Your task to perform on an android device: turn off data saver in the chrome app Image 0: 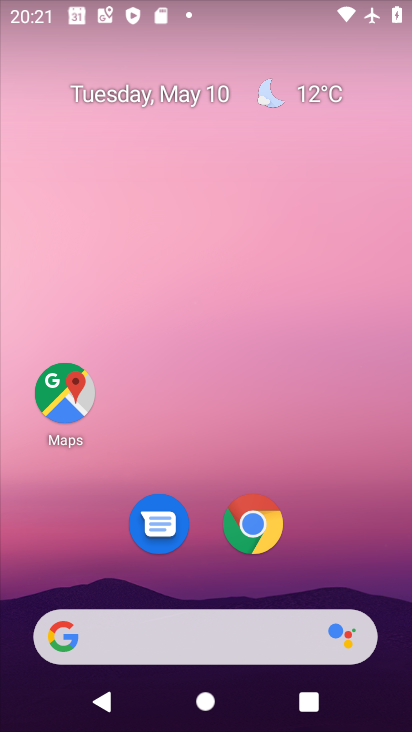
Step 0: click (264, 524)
Your task to perform on an android device: turn off data saver in the chrome app Image 1: 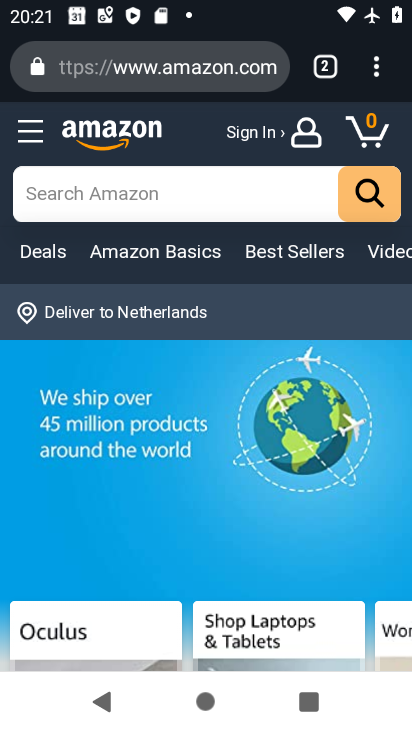
Step 1: click (375, 66)
Your task to perform on an android device: turn off data saver in the chrome app Image 2: 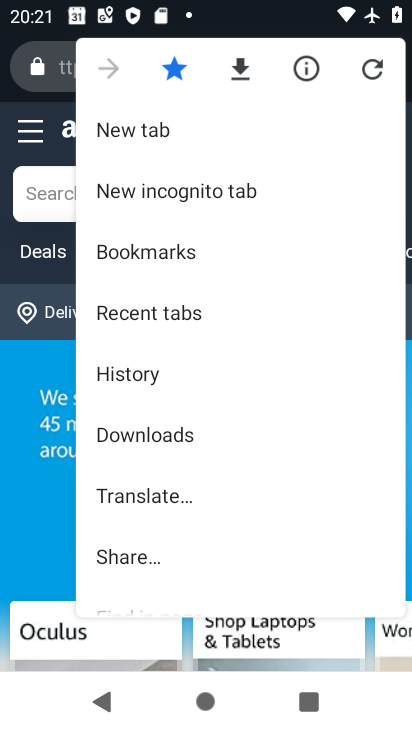
Step 2: drag from (247, 539) to (230, 159)
Your task to perform on an android device: turn off data saver in the chrome app Image 3: 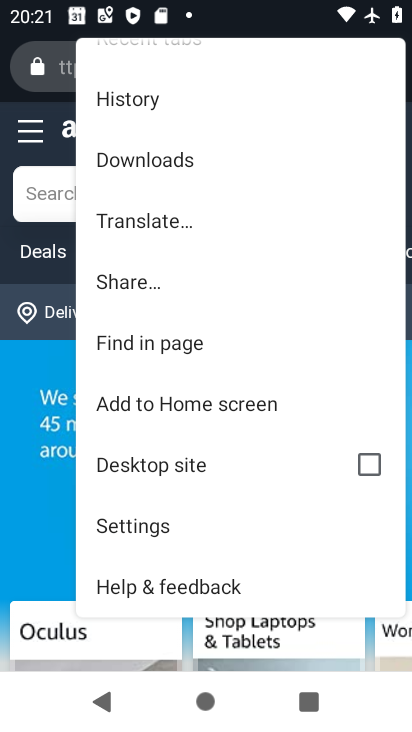
Step 3: click (162, 521)
Your task to perform on an android device: turn off data saver in the chrome app Image 4: 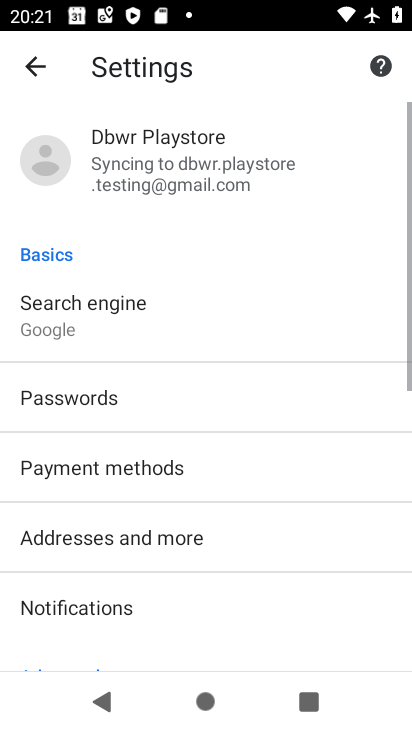
Step 4: drag from (237, 500) to (292, 122)
Your task to perform on an android device: turn off data saver in the chrome app Image 5: 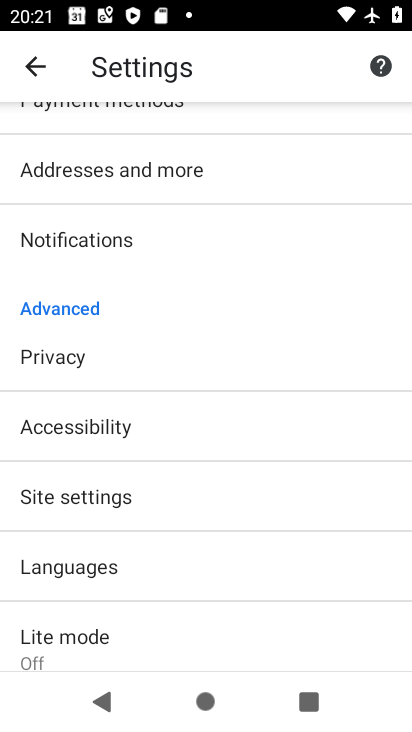
Step 5: click (148, 631)
Your task to perform on an android device: turn off data saver in the chrome app Image 6: 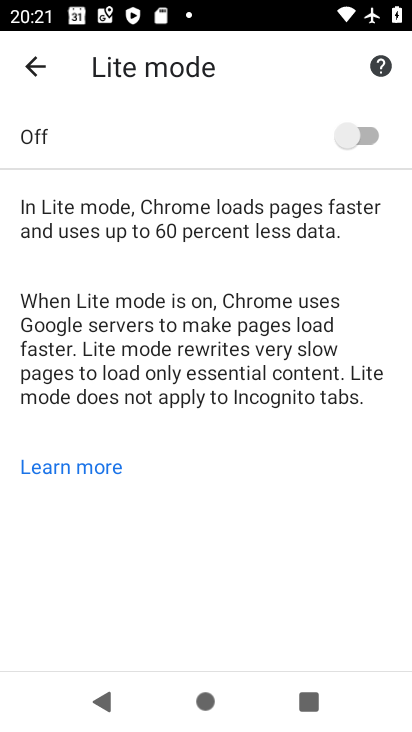
Step 6: task complete